Your task to perform on an android device: turn on airplane mode Image 0: 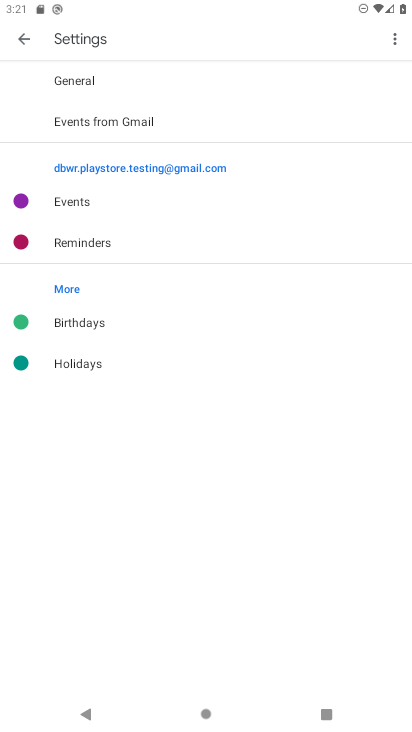
Step 0: press home button
Your task to perform on an android device: turn on airplane mode Image 1: 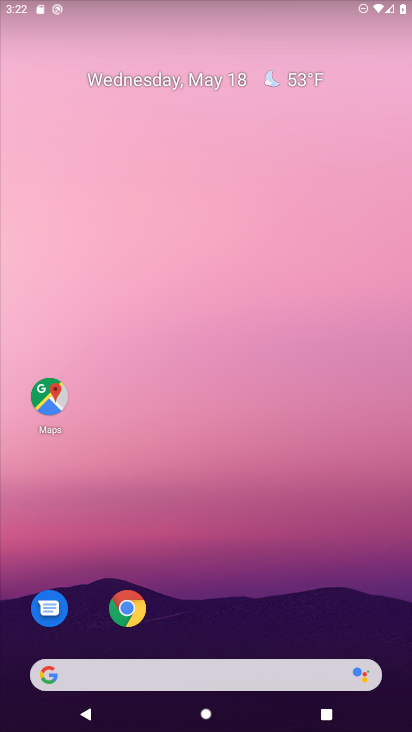
Step 1: drag from (152, 629) to (156, 195)
Your task to perform on an android device: turn on airplane mode Image 2: 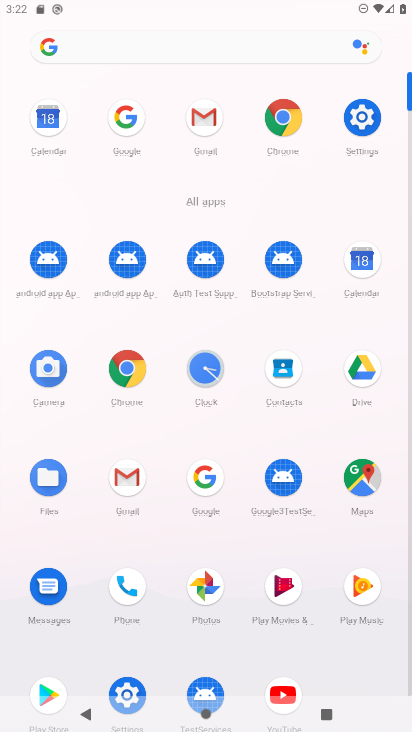
Step 2: click (357, 126)
Your task to perform on an android device: turn on airplane mode Image 3: 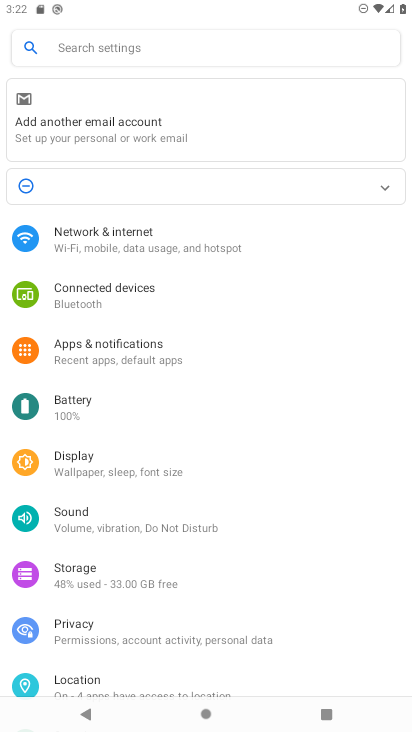
Step 3: click (108, 248)
Your task to perform on an android device: turn on airplane mode Image 4: 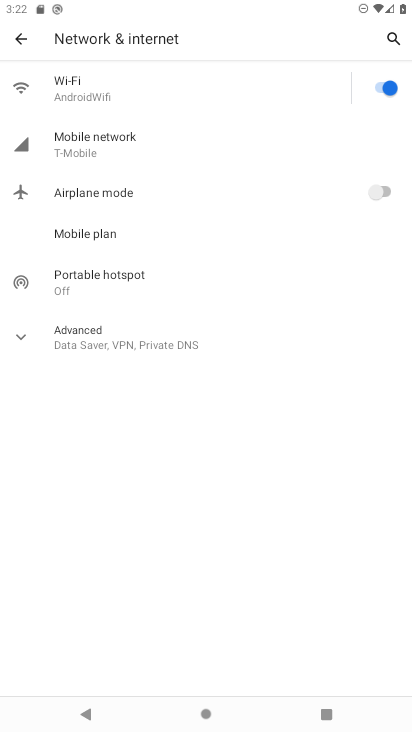
Step 4: click (372, 196)
Your task to perform on an android device: turn on airplane mode Image 5: 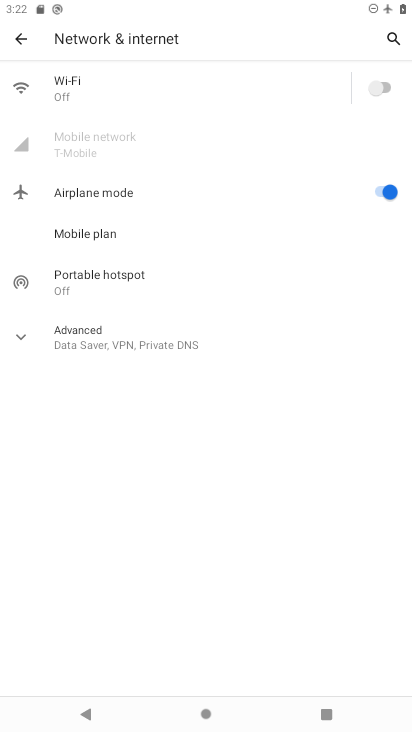
Step 5: task complete